Your task to perform on an android device: Open notification settings Image 0: 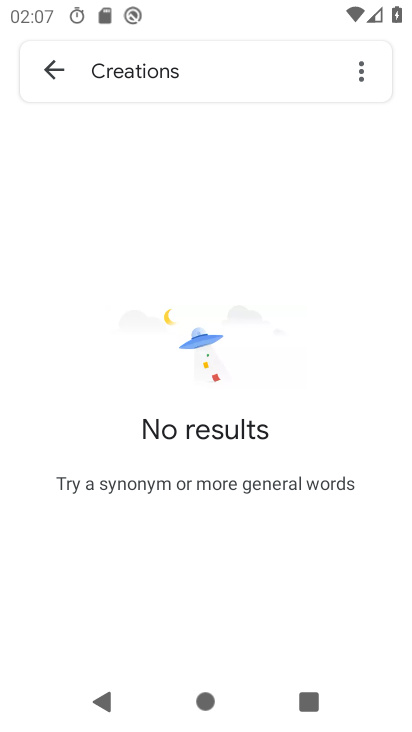
Step 0: press home button
Your task to perform on an android device: Open notification settings Image 1: 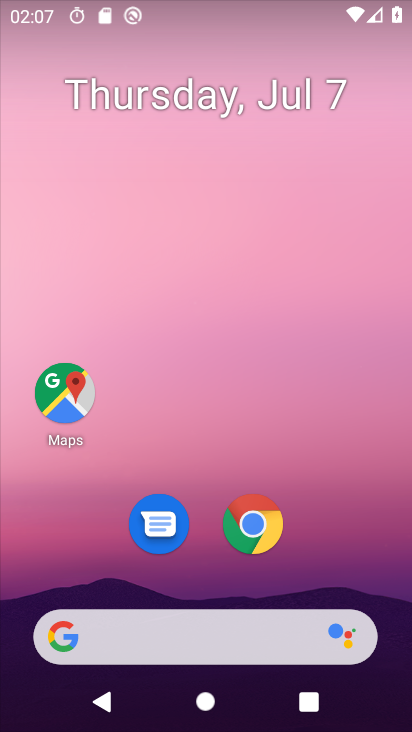
Step 1: drag from (235, 474) to (221, 9)
Your task to perform on an android device: Open notification settings Image 2: 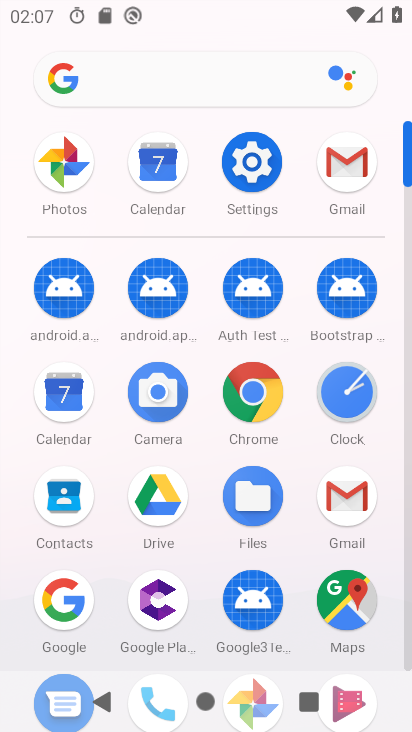
Step 2: click (262, 144)
Your task to perform on an android device: Open notification settings Image 3: 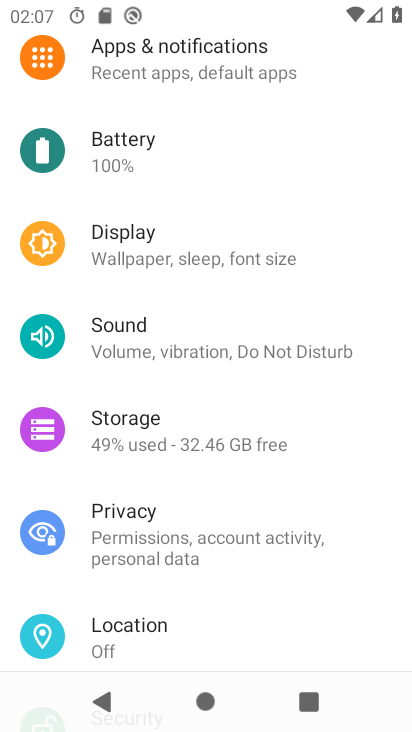
Step 3: click (210, 75)
Your task to perform on an android device: Open notification settings Image 4: 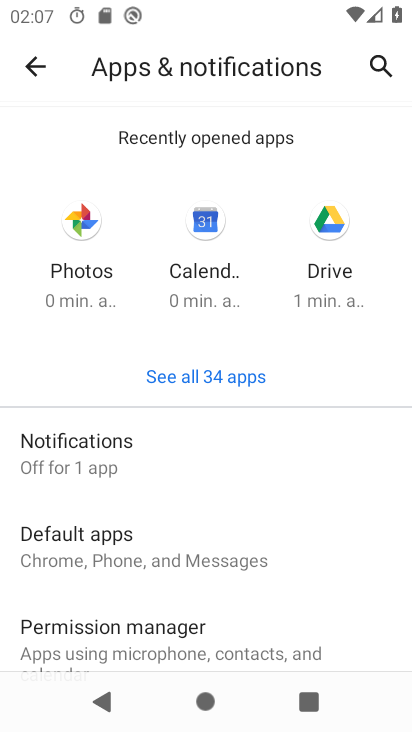
Step 4: click (130, 458)
Your task to perform on an android device: Open notification settings Image 5: 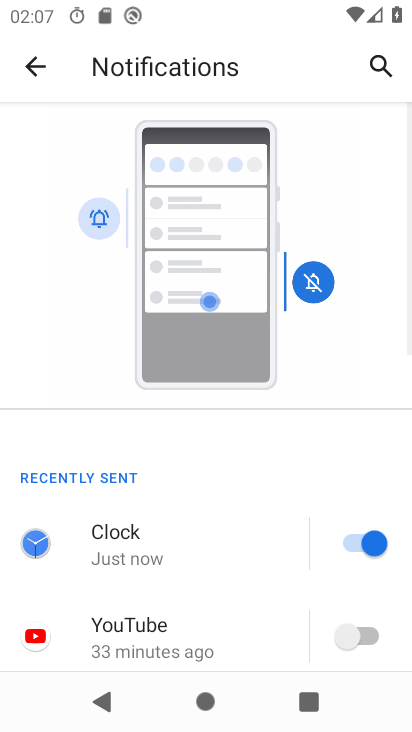
Step 5: task complete